Your task to perform on an android device: install app "YouTube Kids" Image 0: 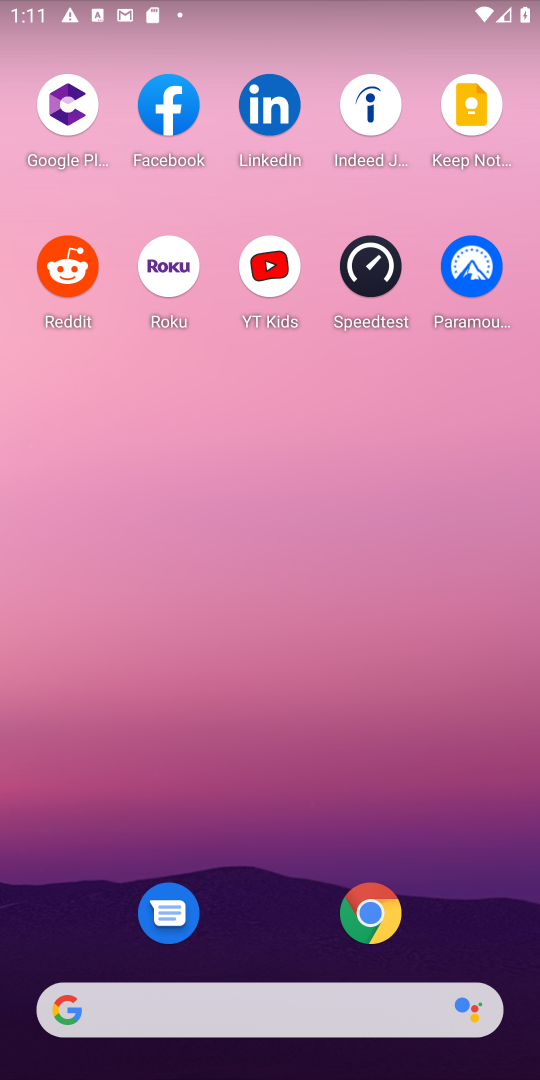
Step 0: click (263, 291)
Your task to perform on an android device: install app "YouTube Kids" Image 1: 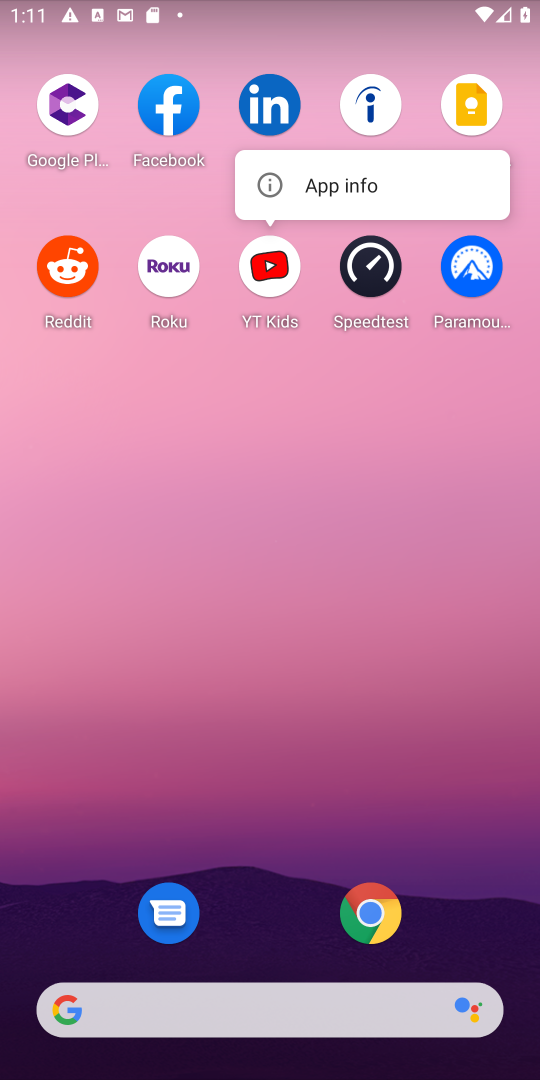
Step 1: click (279, 252)
Your task to perform on an android device: install app "YouTube Kids" Image 2: 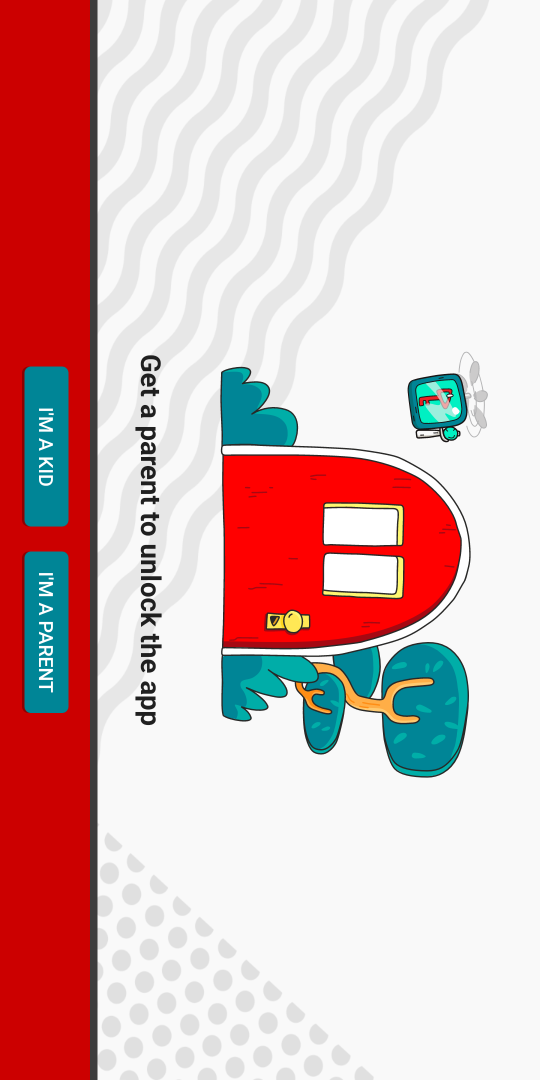
Step 2: task complete